Your task to perform on an android device: check the backup settings in the google photos Image 0: 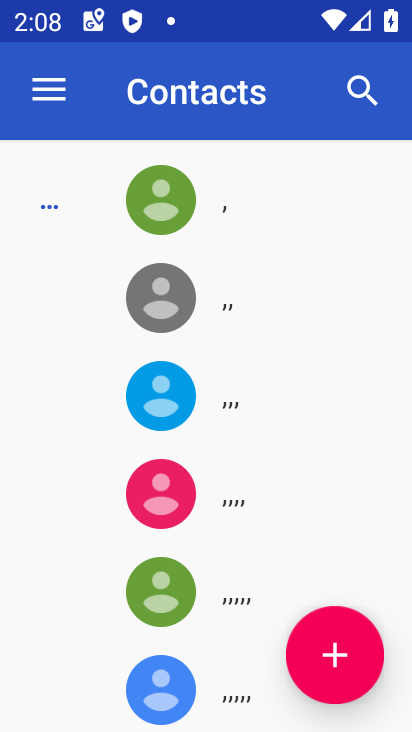
Step 0: press home button
Your task to perform on an android device: check the backup settings in the google photos Image 1: 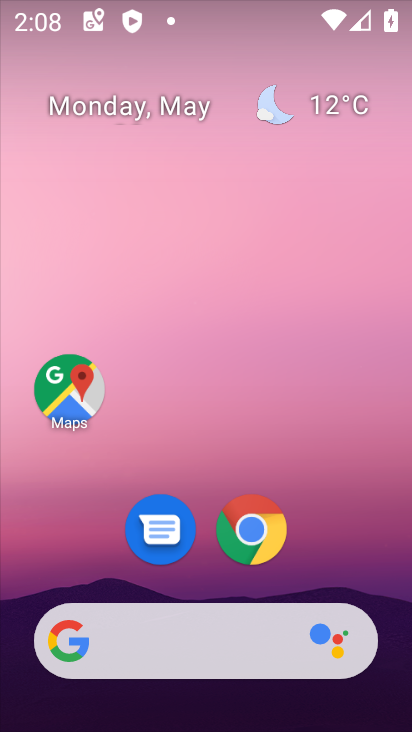
Step 1: drag from (383, 618) to (328, 83)
Your task to perform on an android device: check the backup settings in the google photos Image 2: 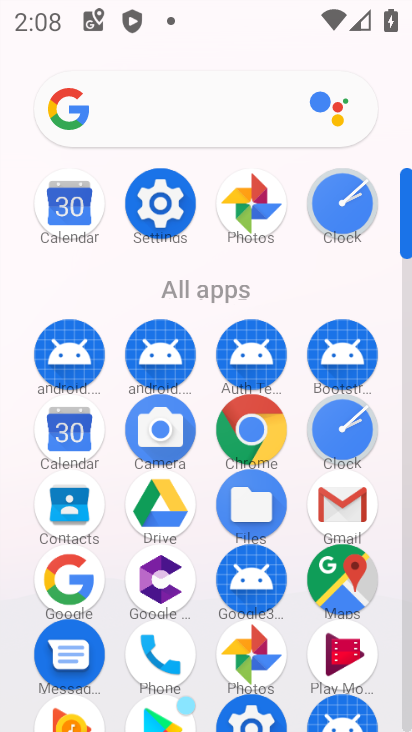
Step 2: click (402, 679)
Your task to perform on an android device: check the backup settings in the google photos Image 3: 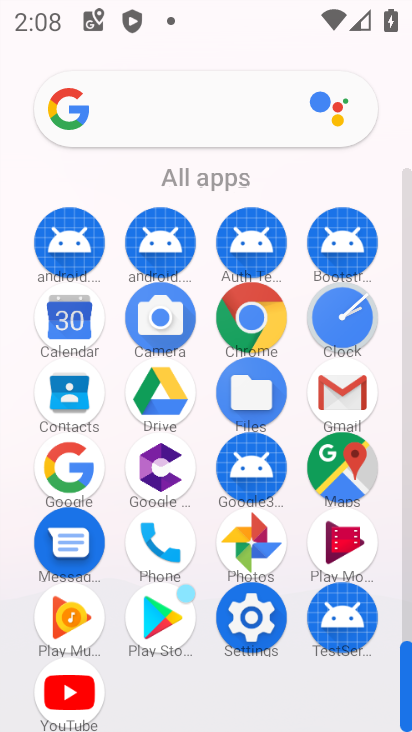
Step 3: click (250, 546)
Your task to perform on an android device: check the backup settings in the google photos Image 4: 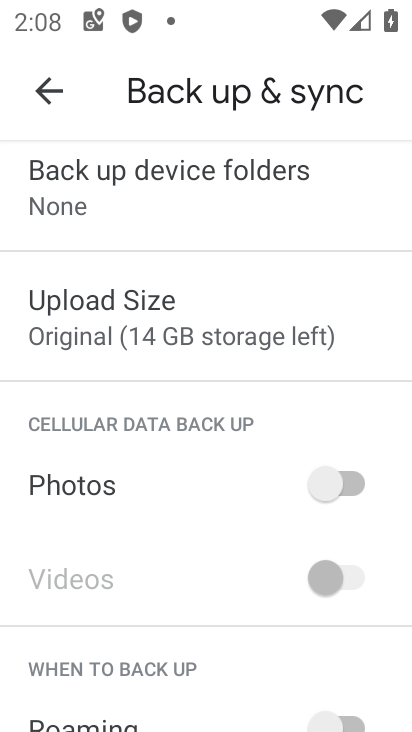
Step 4: task complete